Your task to perform on an android device: Search for "rayovac triple a" on newegg.com, select the first entry, and add it to the cart. Image 0: 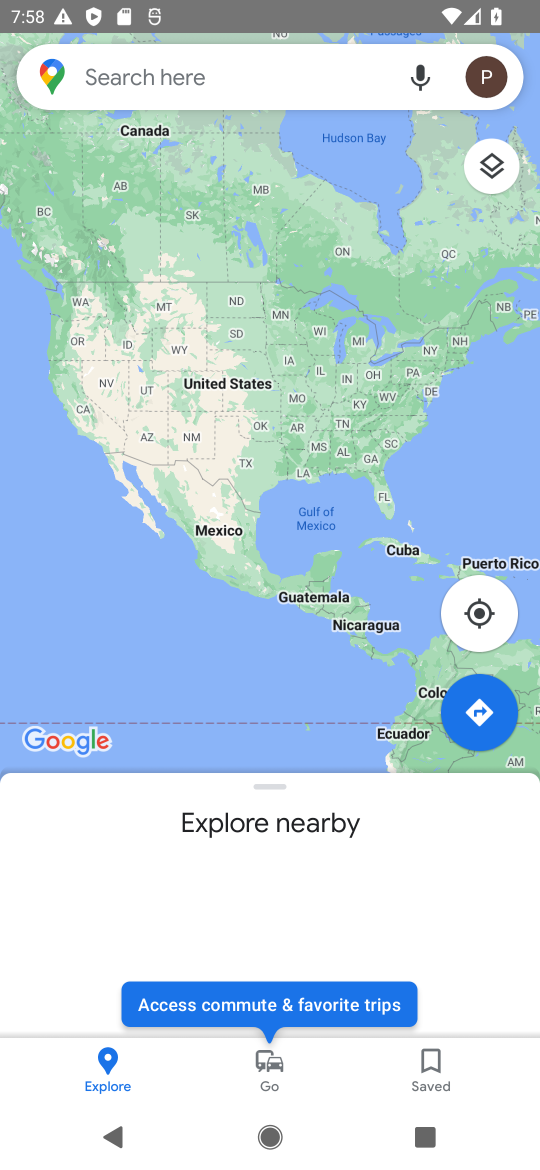
Step 0: press home button
Your task to perform on an android device: Search for "rayovac triple a" on newegg.com, select the first entry, and add it to the cart. Image 1: 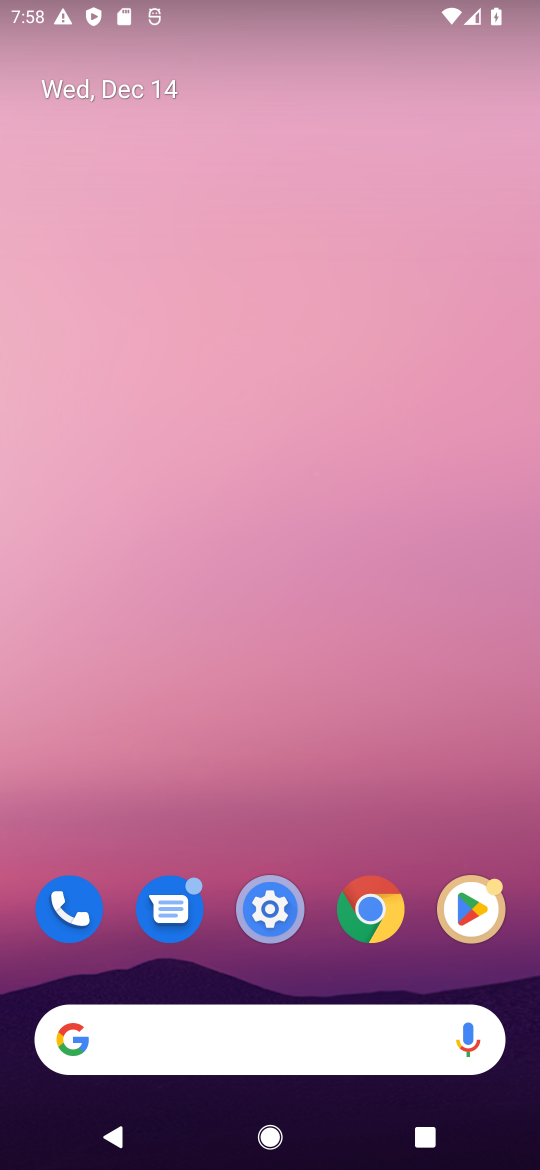
Step 1: click (379, 913)
Your task to perform on an android device: Search for "rayovac triple a" on newegg.com, select the first entry, and add it to the cart. Image 2: 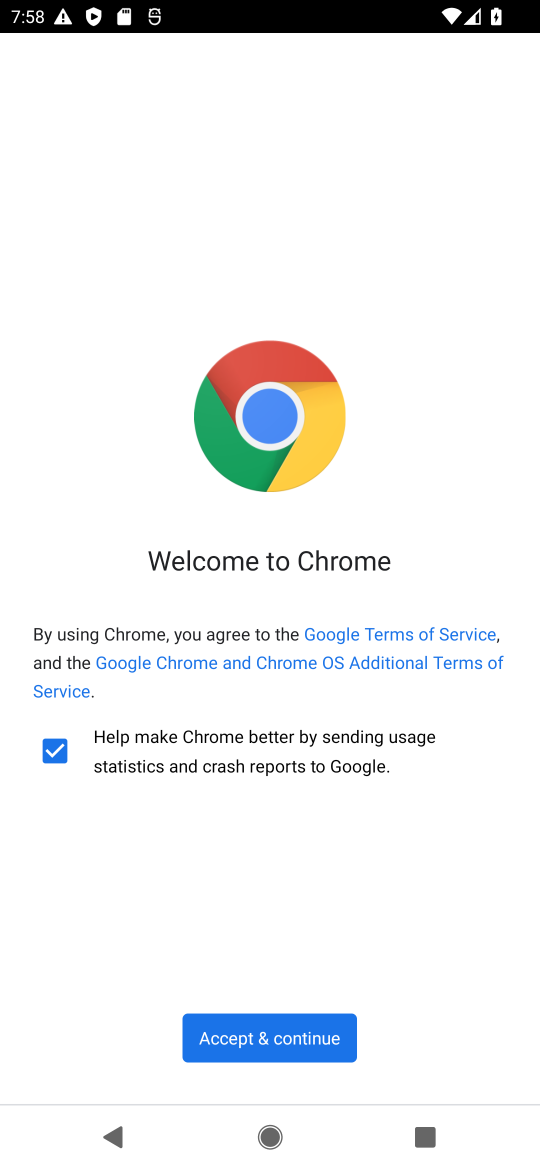
Step 2: click (311, 1057)
Your task to perform on an android device: Search for "rayovac triple a" on newegg.com, select the first entry, and add it to the cart. Image 3: 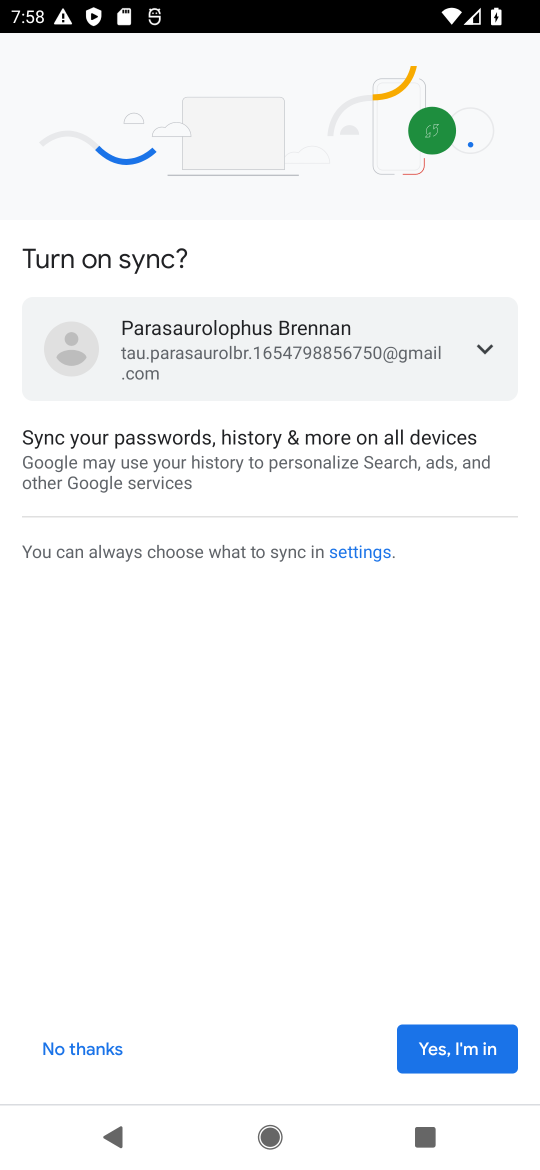
Step 3: click (439, 1054)
Your task to perform on an android device: Search for "rayovac triple a" on newegg.com, select the first entry, and add it to the cart. Image 4: 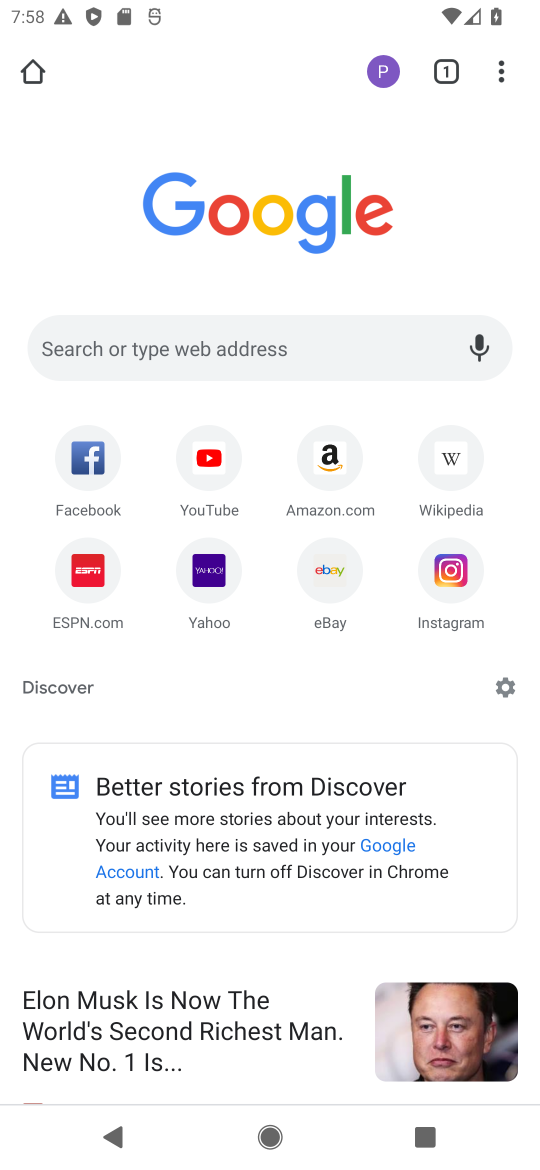
Step 4: click (150, 347)
Your task to perform on an android device: Search for "rayovac triple a" on newegg.com, select the first entry, and add it to the cart. Image 5: 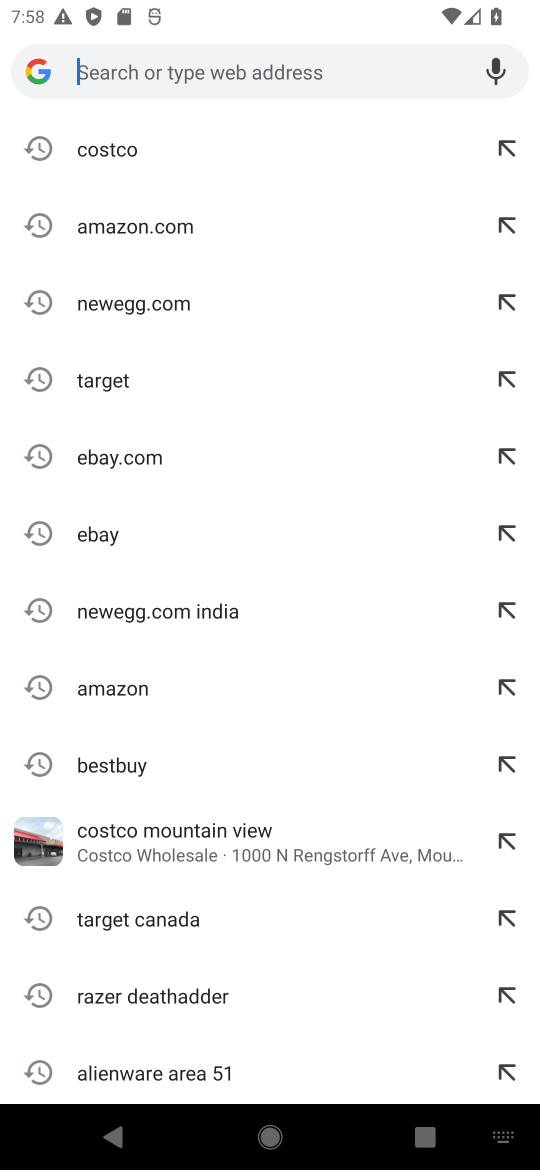
Step 5: type "newegg.com"
Your task to perform on an android device: Search for "rayovac triple a" on newegg.com, select the first entry, and add it to the cart. Image 6: 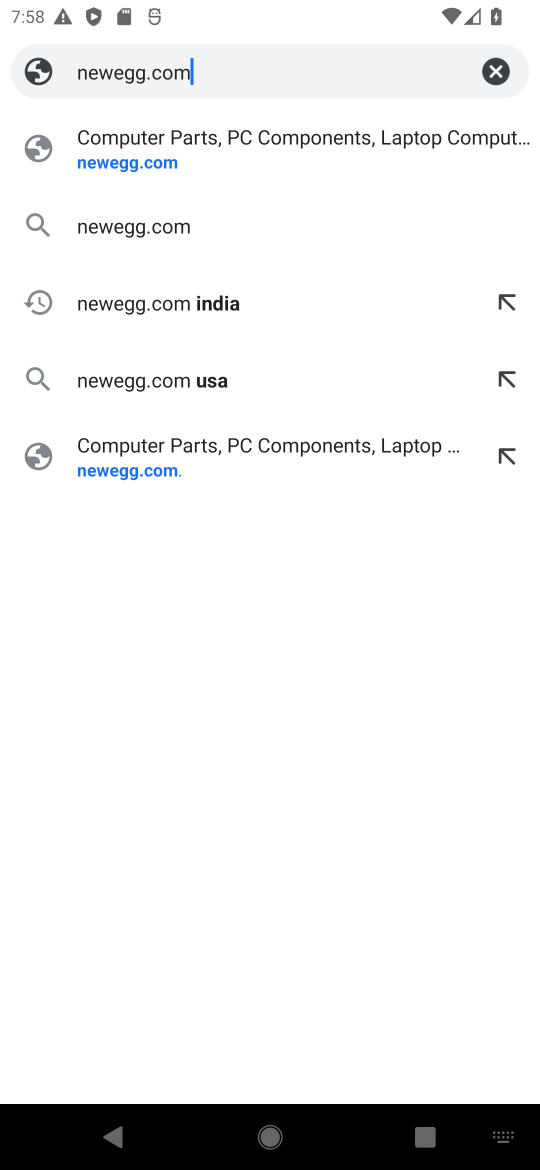
Step 6: click (252, 163)
Your task to perform on an android device: Search for "rayovac triple a" on newegg.com, select the first entry, and add it to the cart. Image 7: 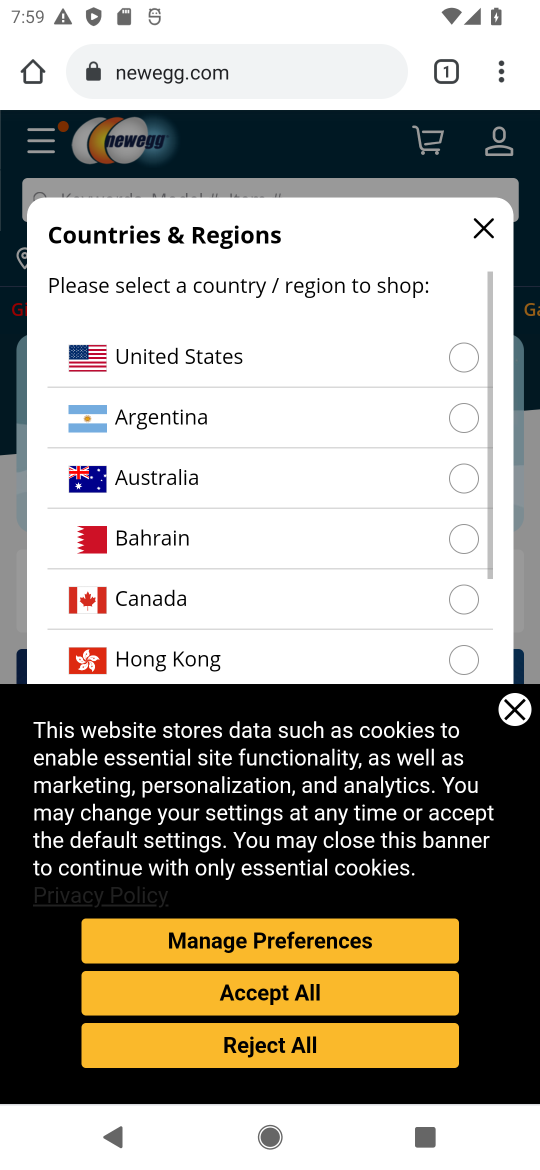
Step 7: click (320, 1006)
Your task to perform on an android device: Search for "rayovac triple a" on newegg.com, select the first entry, and add it to the cart. Image 8: 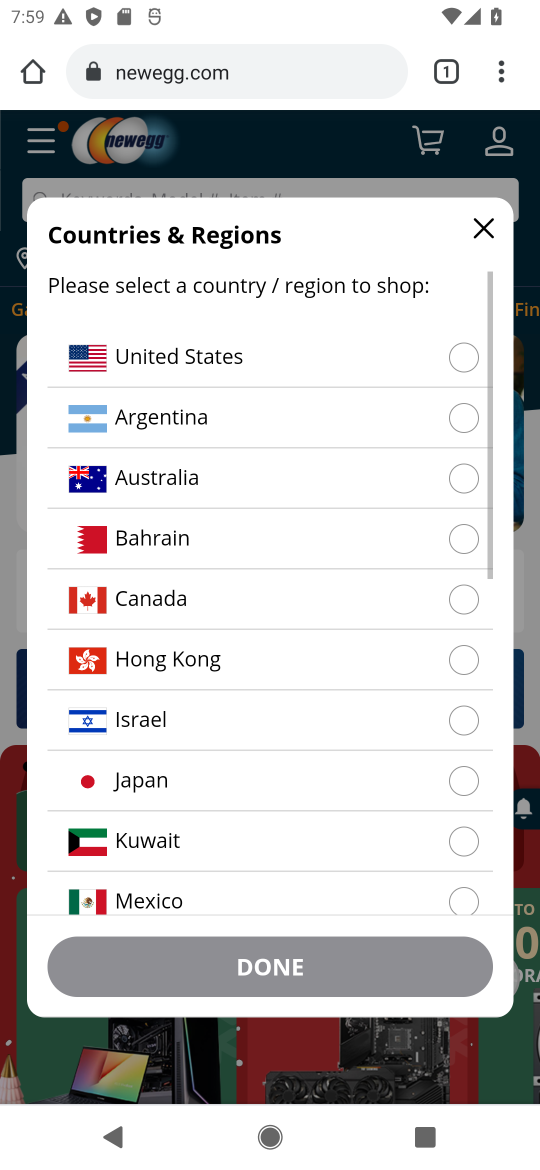
Step 8: click (465, 364)
Your task to perform on an android device: Search for "rayovac triple a" on newegg.com, select the first entry, and add it to the cart. Image 9: 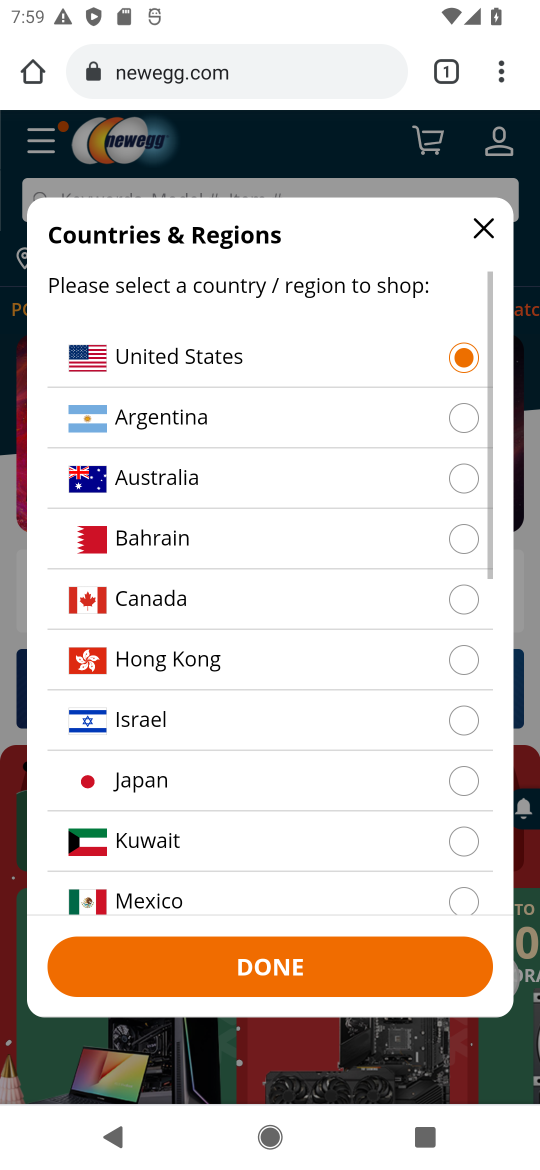
Step 9: click (285, 984)
Your task to perform on an android device: Search for "rayovac triple a" on newegg.com, select the first entry, and add it to the cart. Image 10: 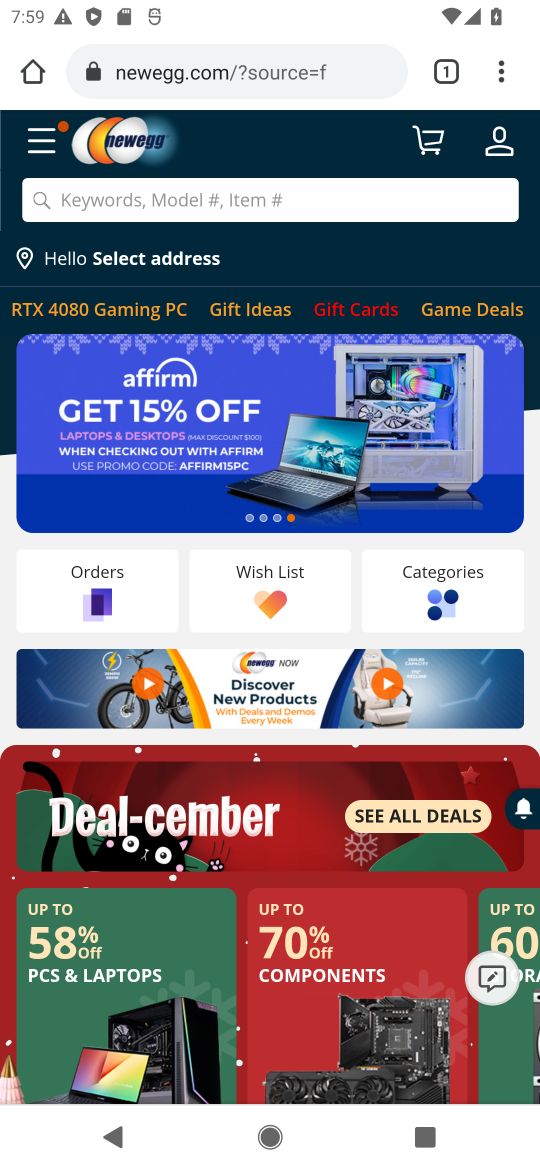
Step 10: click (191, 208)
Your task to perform on an android device: Search for "rayovac triple a" on newegg.com, select the first entry, and add it to the cart. Image 11: 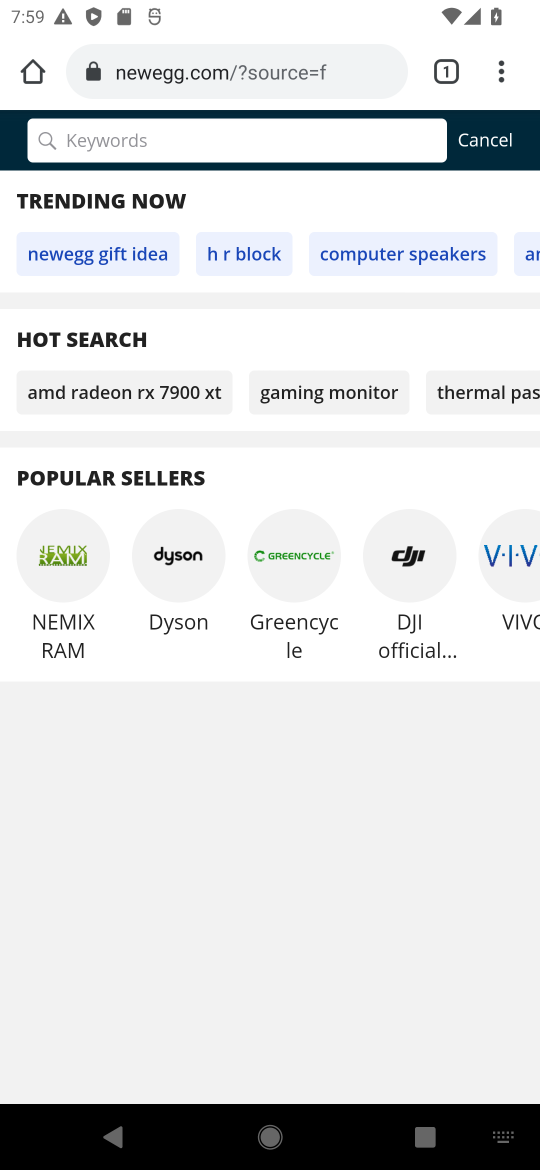
Step 11: type "rayovac triple a"
Your task to perform on an android device: Search for "rayovac triple a" on newegg.com, select the first entry, and add it to the cart. Image 12: 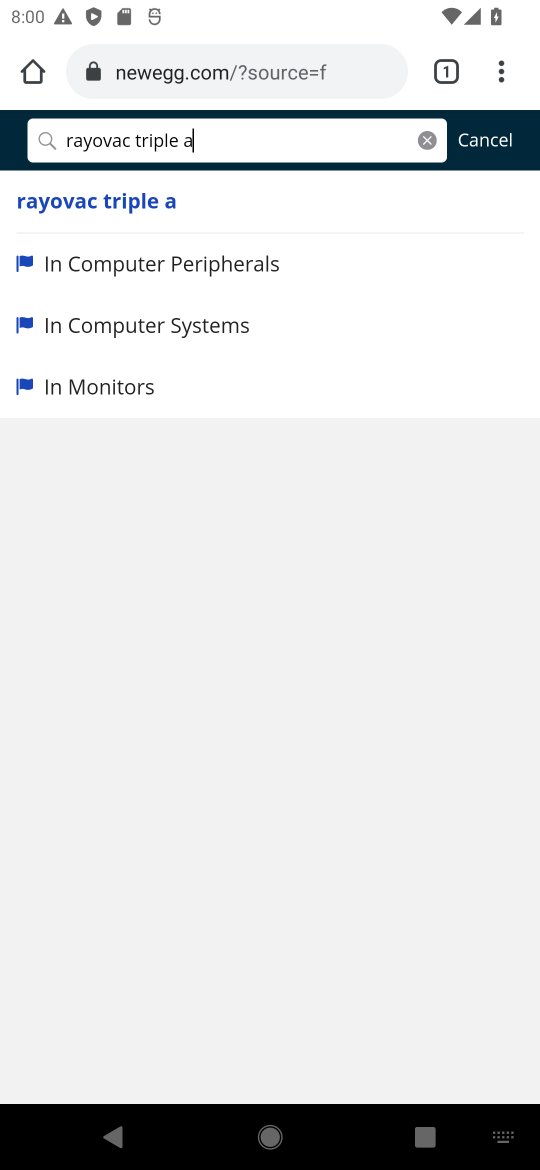
Step 12: press enter
Your task to perform on an android device: Search for "rayovac triple a" on newegg.com, select the first entry, and add it to the cart. Image 13: 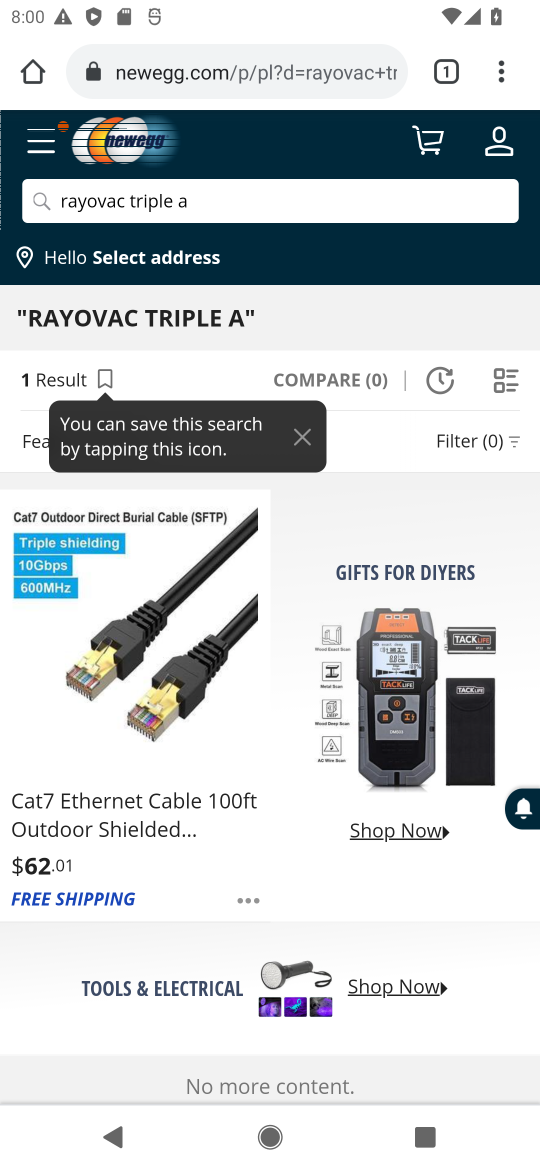
Step 13: task complete